Your task to perform on an android device: check android version Image 0: 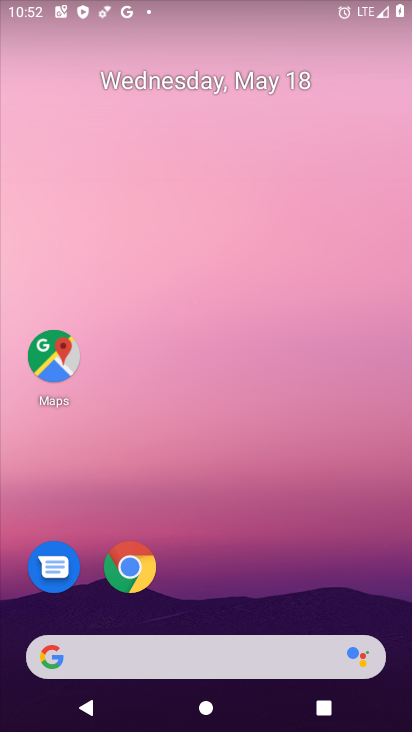
Step 0: drag from (210, 640) to (189, 111)
Your task to perform on an android device: check android version Image 1: 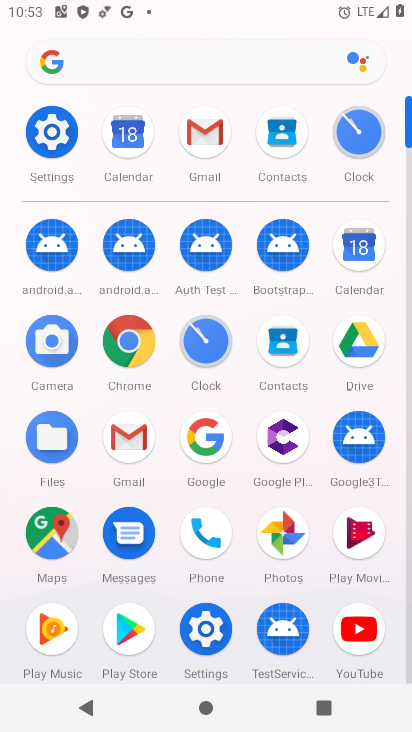
Step 1: click (198, 629)
Your task to perform on an android device: check android version Image 2: 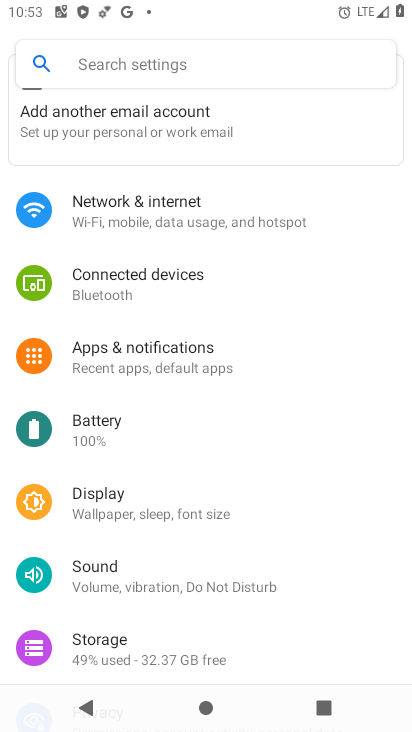
Step 2: drag from (182, 602) to (140, 230)
Your task to perform on an android device: check android version Image 3: 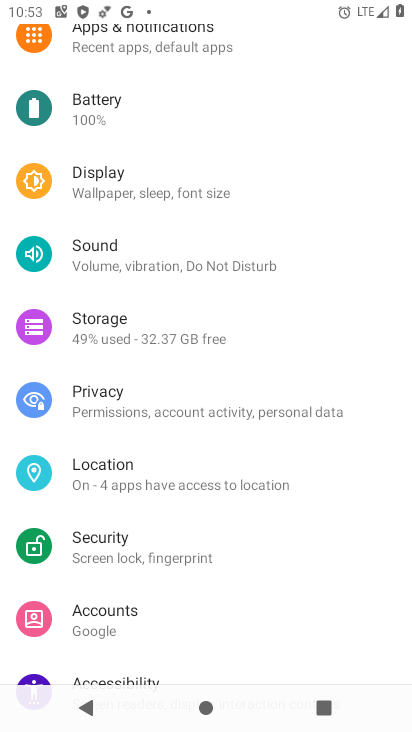
Step 3: drag from (139, 632) to (138, 172)
Your task to perform on an android device: check android version Image 4: 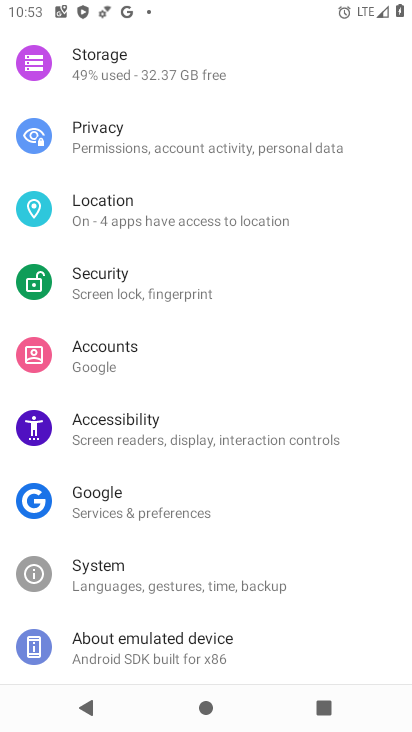
Step 4: click (192, 645)
Your task to perform on an android device: check android version Image 5: 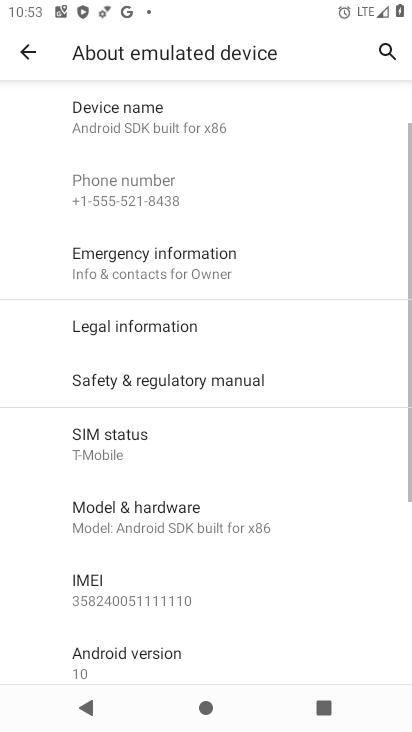
Step 5: click (172, 652)
Your task to perform on an android device: check android version Image 6: 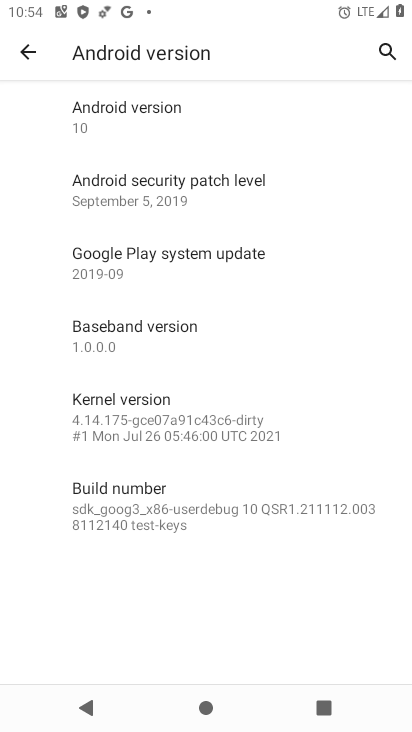
Step 6: task complete